Your task to perform on an android device: toggle location history Image 0: 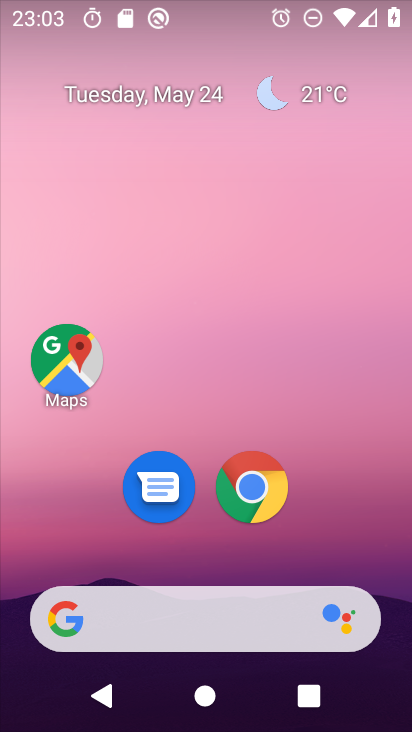
Step 0: click (58, 361)
Your task to perform on an android device: toggle location history Image 1: 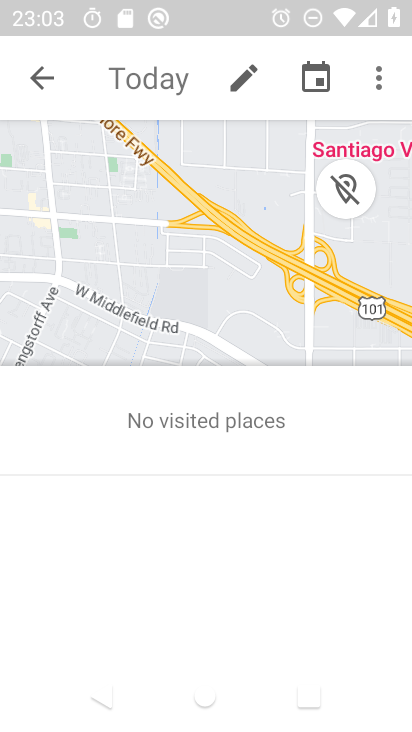
Step 1: click (380, 81)
Your task to perform on an android device: toggle location history Image 2: 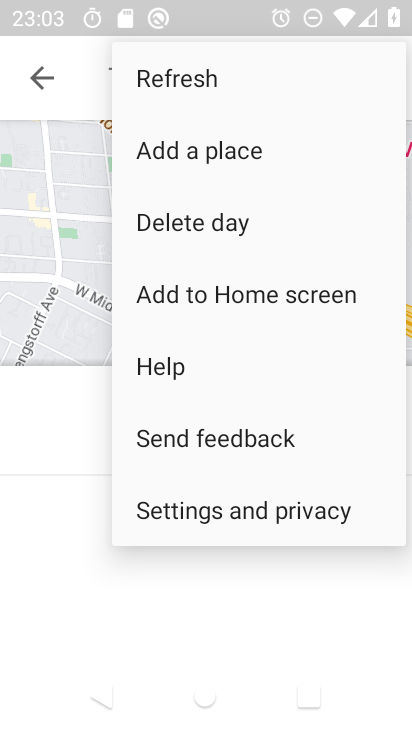
Step 2: click (183, 520)
Your task to perform on an android device: toggle location history Image 3: 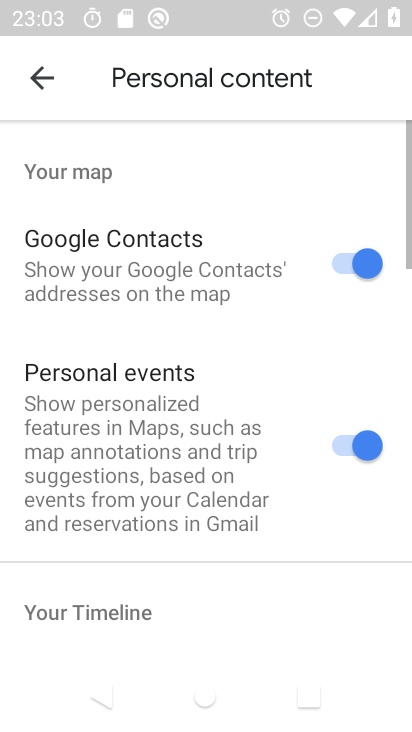
Step 3: drag from (180, 522) to (171, 3)
Your task to perform on an android device: toggle location history Image 4: 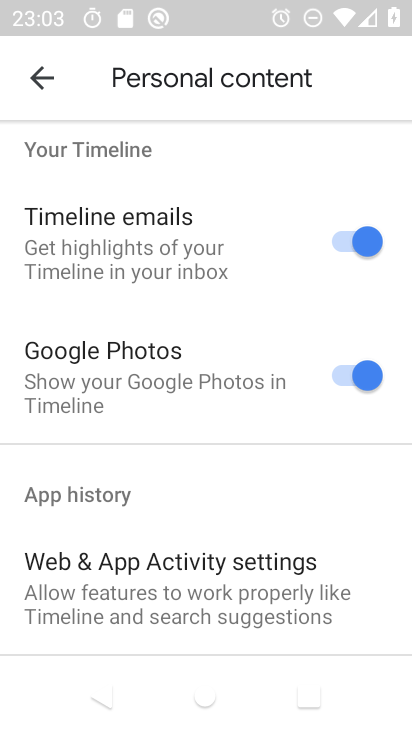
Step 4: drag from (109, 454) to (116, 73)
Your task to perform on an android device: toggle location history Image 5: 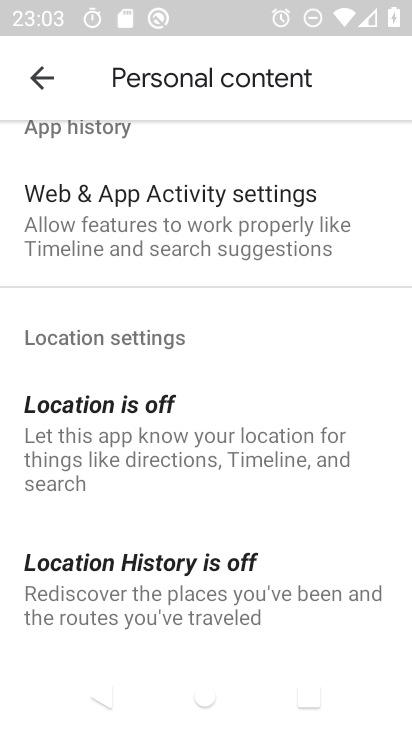
Step 5: click (126, 586)
Your task to perform on an android device: toggle location history Image 6: 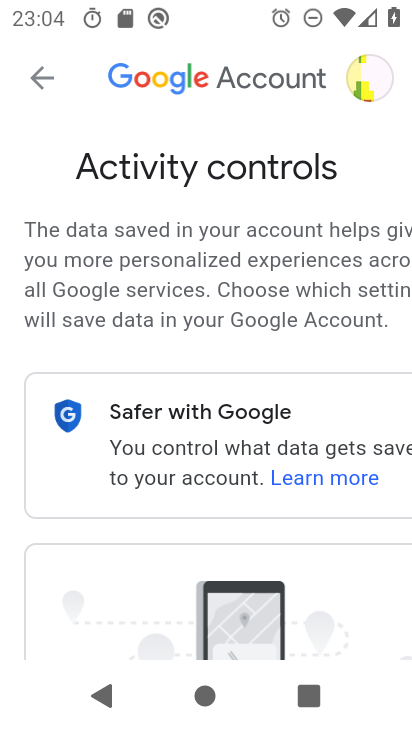
Step 6: drag from (207, 548) to (199, 32)
Your task to perform on an android device: toggle location history Image 7: 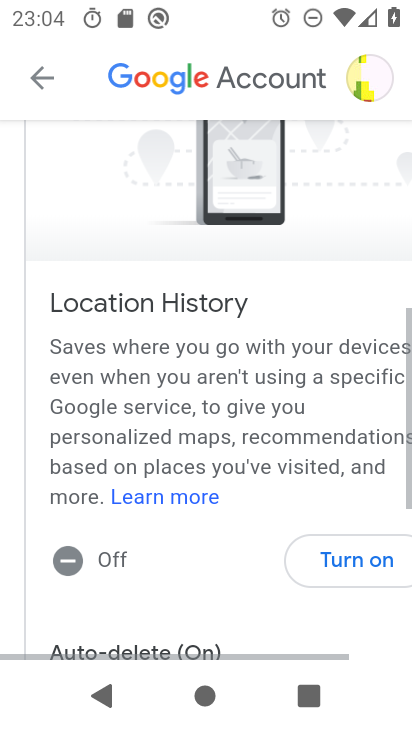
Step 7: click (337, 536)
Your task to perform on an android device: toggle location history Image 8: 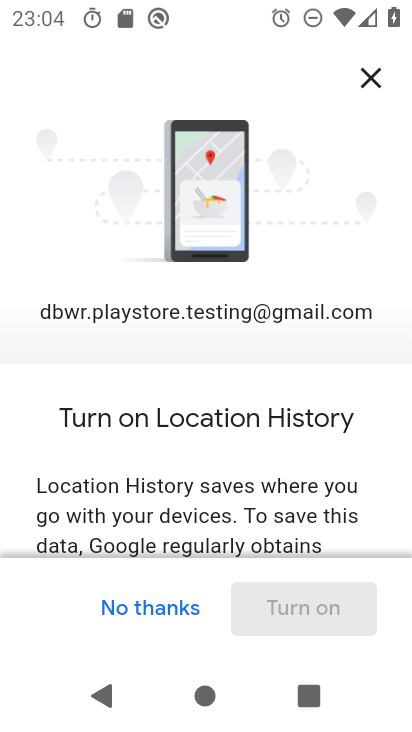
Step 8: drag from (230, 507) to (237, 19)
Your task to perform on an android device: toggle location history Image 9: 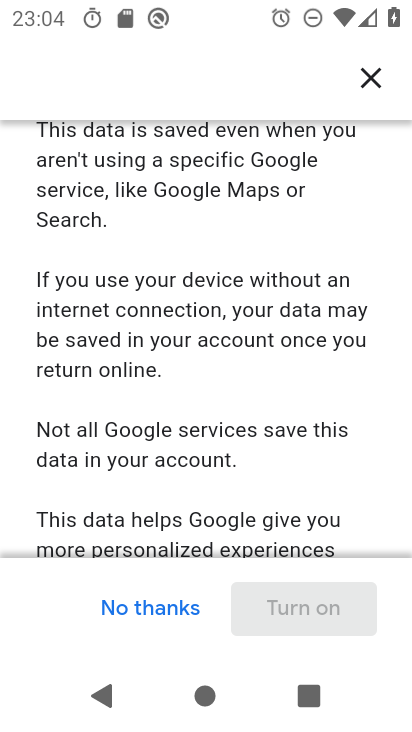
Step 9: drag from (195, 372) to (198, 26)
Your task to perform on an android device: toggle location history Image 10: 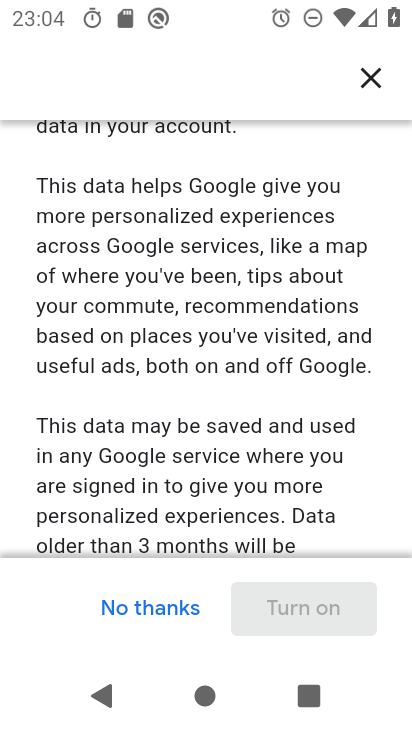
Step 10: drag from (245, 513) to (252, 58)
Your task to perform on an android device: toggle location history Image 11: 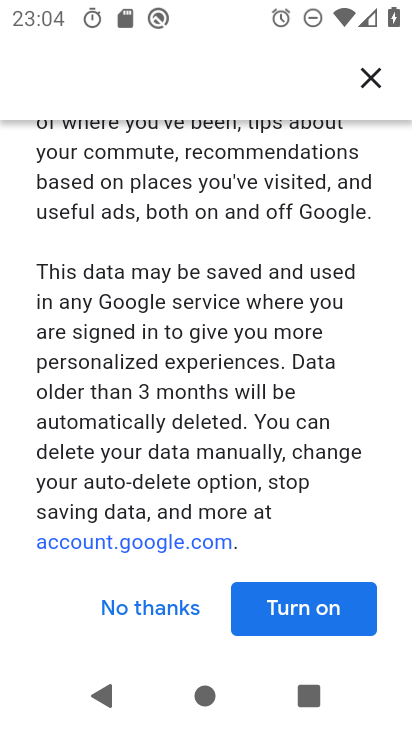
Step 11: click (289, 615)
Your task to perform on an android device: toggle location history Image 12: 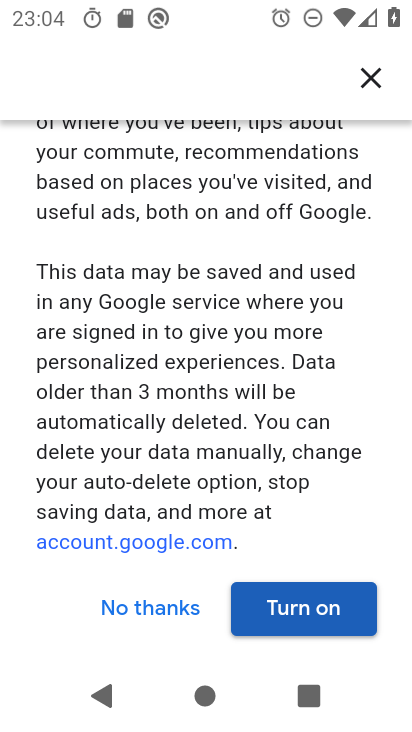
Step 12: drag from (255, 496) to (257, 331)
Your task to perform on an android device: toggle location history Image 13: 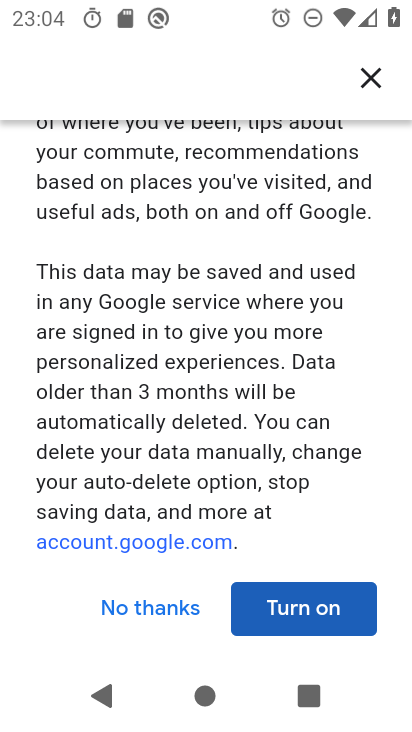
Step 13: click (290, 616)
Your task to perform on an android device: toggle location history Image 14: 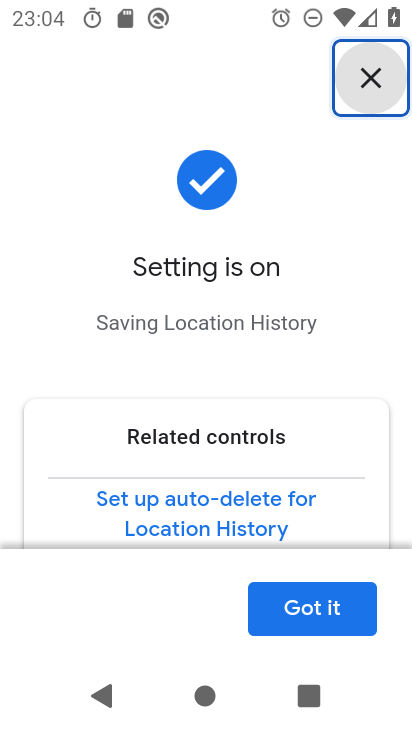
Step 14: click (290, 616)
Your task to perform on an android device: toggle location history Image 15: 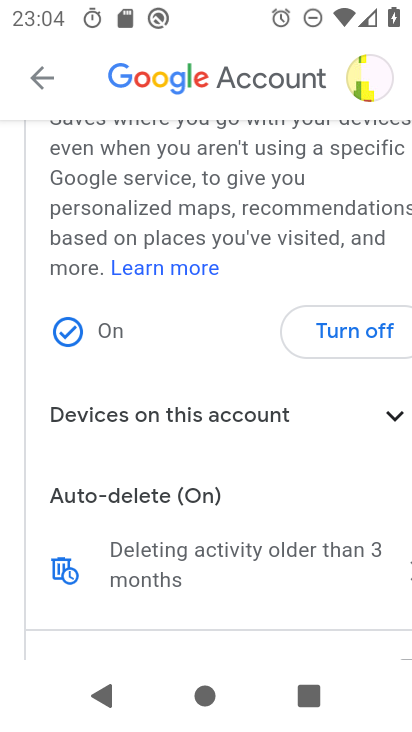
Step 15: task complete